Your task to perform on an android device: change keyboard looks Image 0: 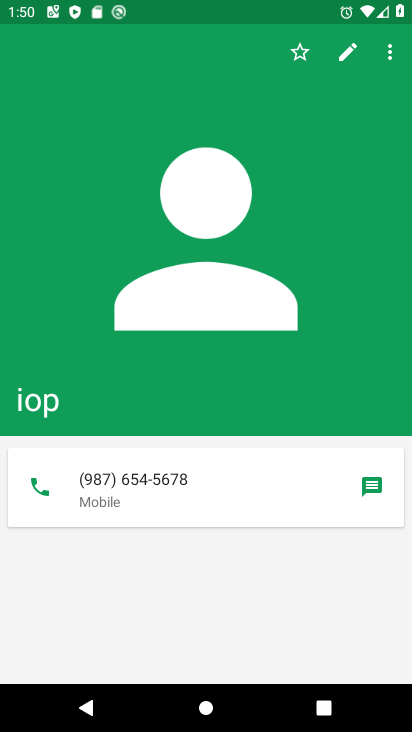
Step 0: press home button
Your task to perform on an android device: change keyboard looks Image 1: 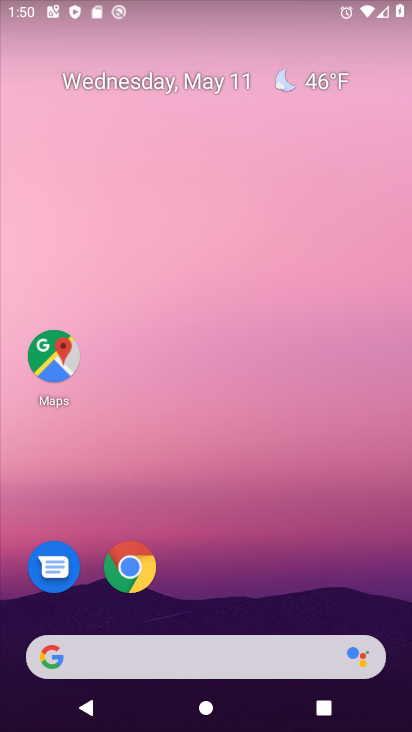
Step 1: drag from (191, 583) to (210, 15)
Your task to perform on an android device: change keyboard looks Image 2: 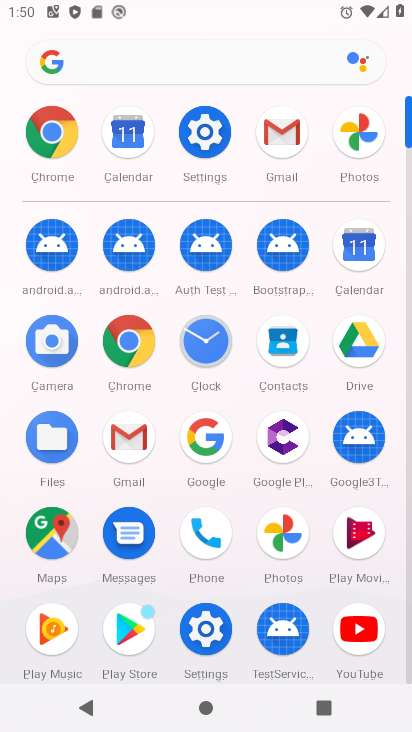
Step 2: click (216, 172)
Your task to perform on an android device: change keyboard looks Image 3: 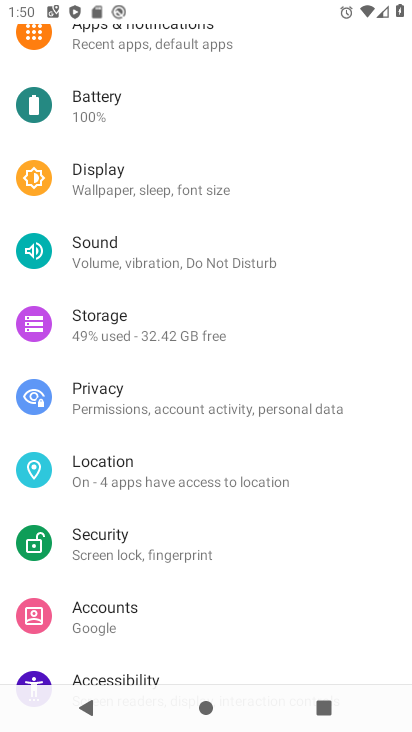
Step 3: drag from (148, 602) to (132, 148)
Your task to perform on an android device: change keyboard looks Image 4: 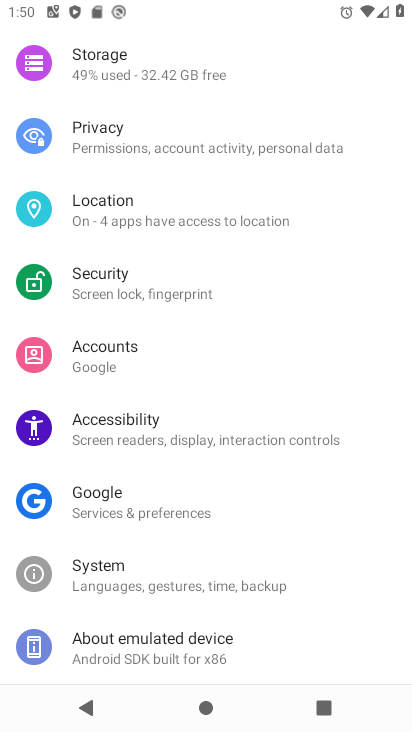
Step 4: click (149, 568)
Your task to perform on an android device: change keyboard looks Image 5: 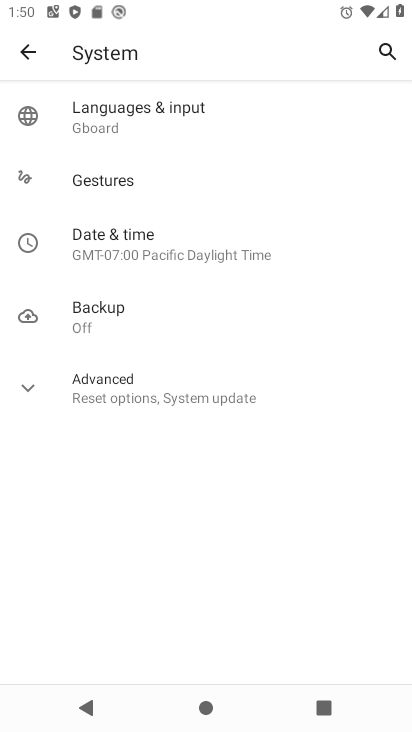
Step 5: click (98, 126)
Your task to perform on an android device: change keyboard looks Image 6: 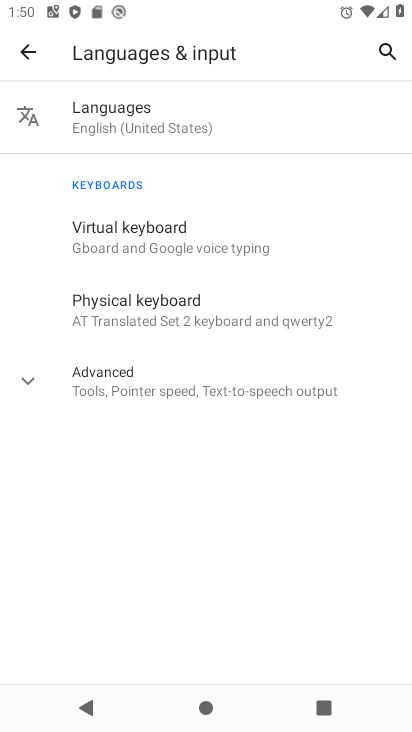
Step 6: click (201, 248)
Your task to perform on an android device: change keyboard looks Image 7: 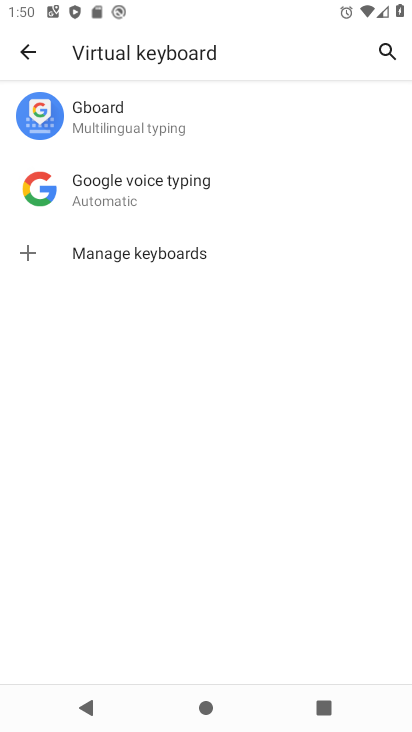
Step 7: click (139, 137)
Your task to perform on an android device: change keyboard looks Image 8: 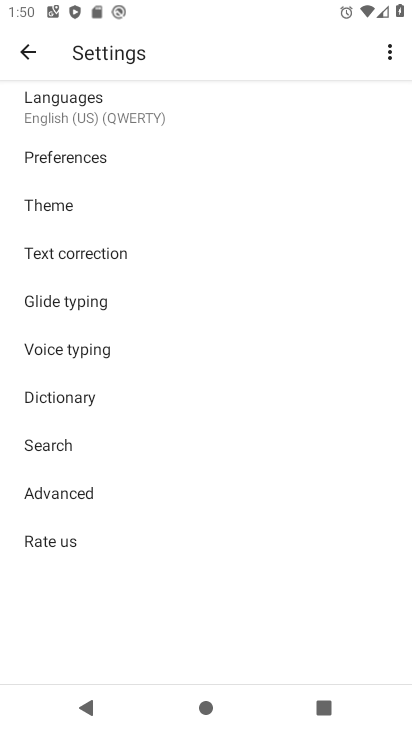
Step 8: click (58, 219)
Your task to perform on an android device: change keyboard looks Image 9: 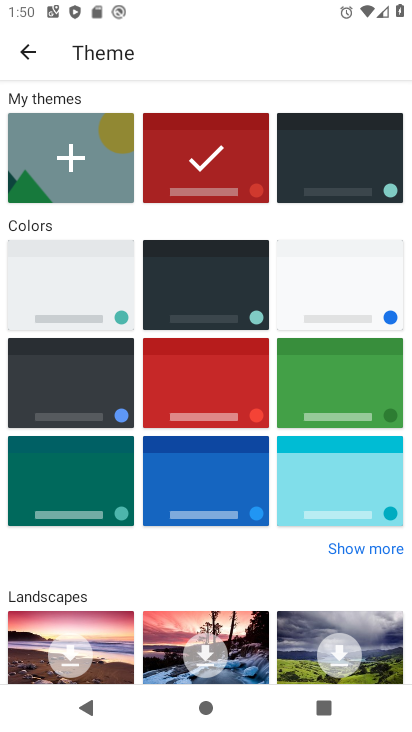
Step 9: click (219, 375)
Your task to perform on an android device: change keyboard looks Image 10: 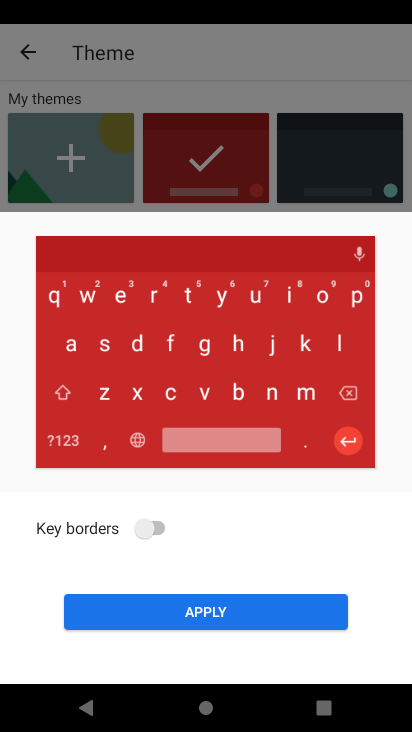
Step 10: click (249, 600)
Your task to perform on an android device: change keyboard looks Image 11: 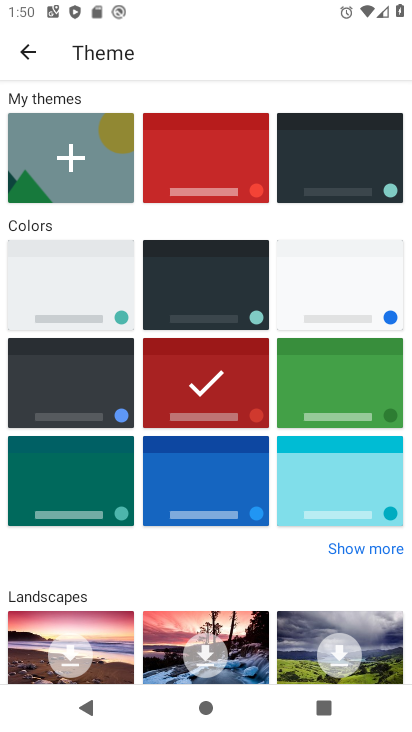
Step 11: task complete